Your task to perform on an android device: open app "Adobe Acrobat Reader" Image 0: 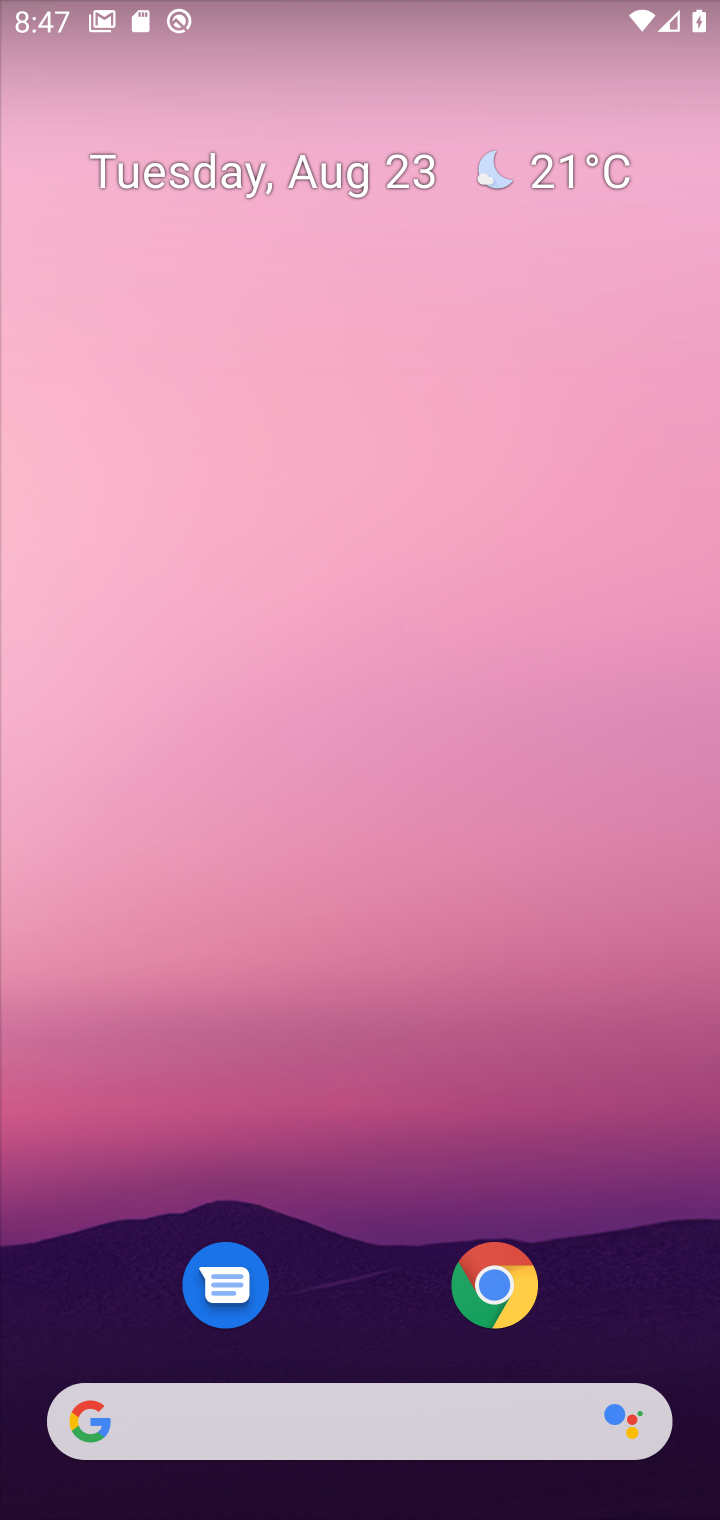
Step 0: drag from (660, 1306) to (552, 155)
Your task to perform on an android device: open app "Adobe Acrobat Reader" Image 1: 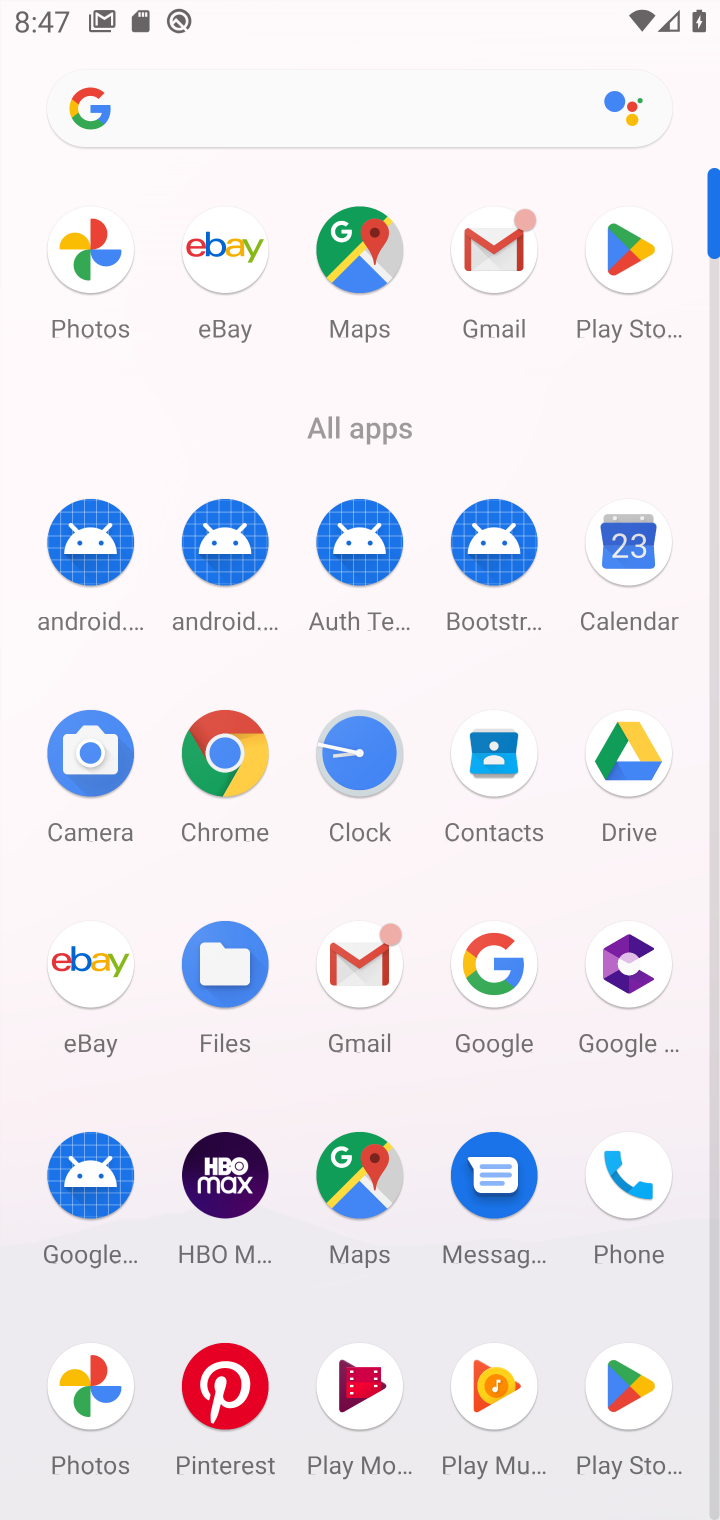
Step 1: click (634, 1384)
Your task to perform on an android device: open app "Adobe Acrobat Reader" Image 2: 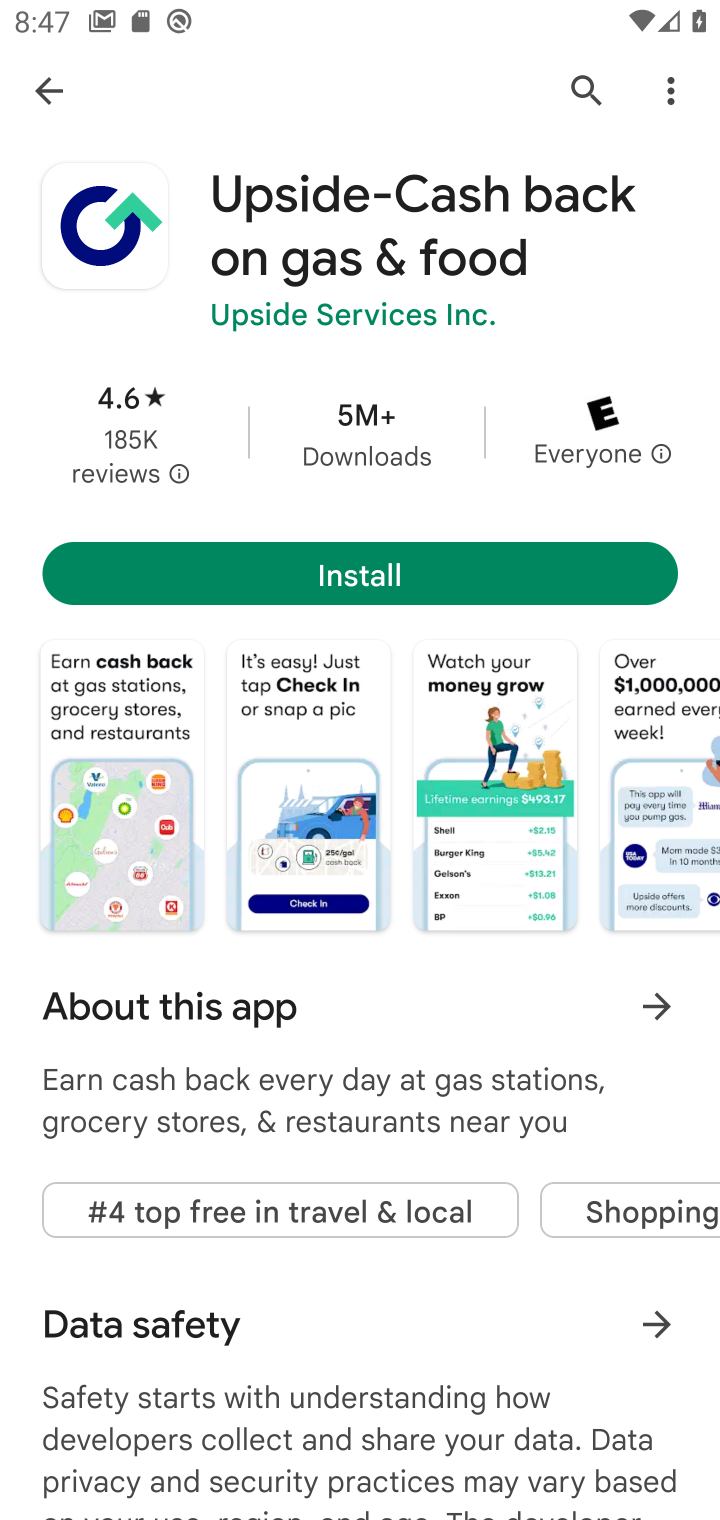
Step 2: click (585, 95)
Your task to perform on an android device: open app "Adobe Acrobat Reader" Image 3: 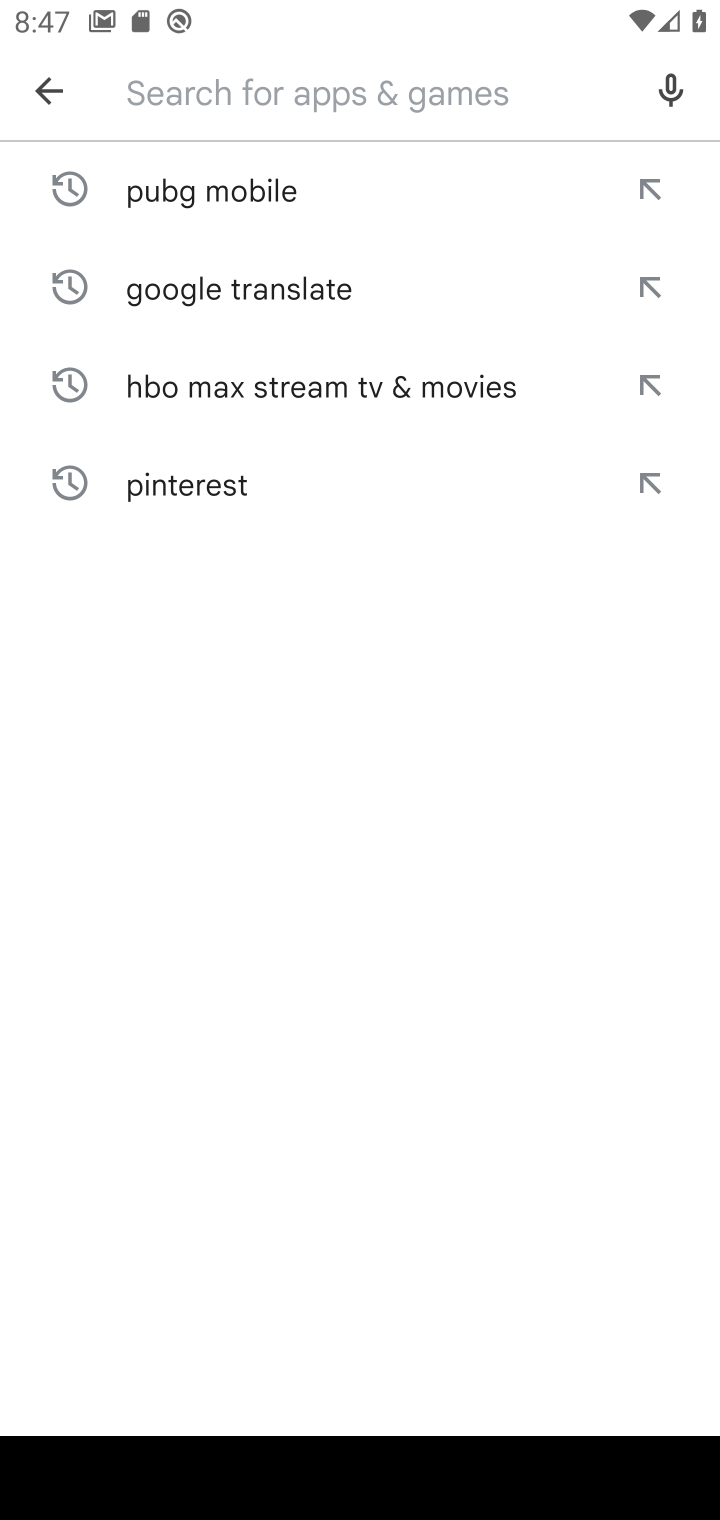
Step 3: type "Adobe Acrobat Reader"
Your task to perform on an android device: open app "Adobe Acrobat Reader" Image 4: 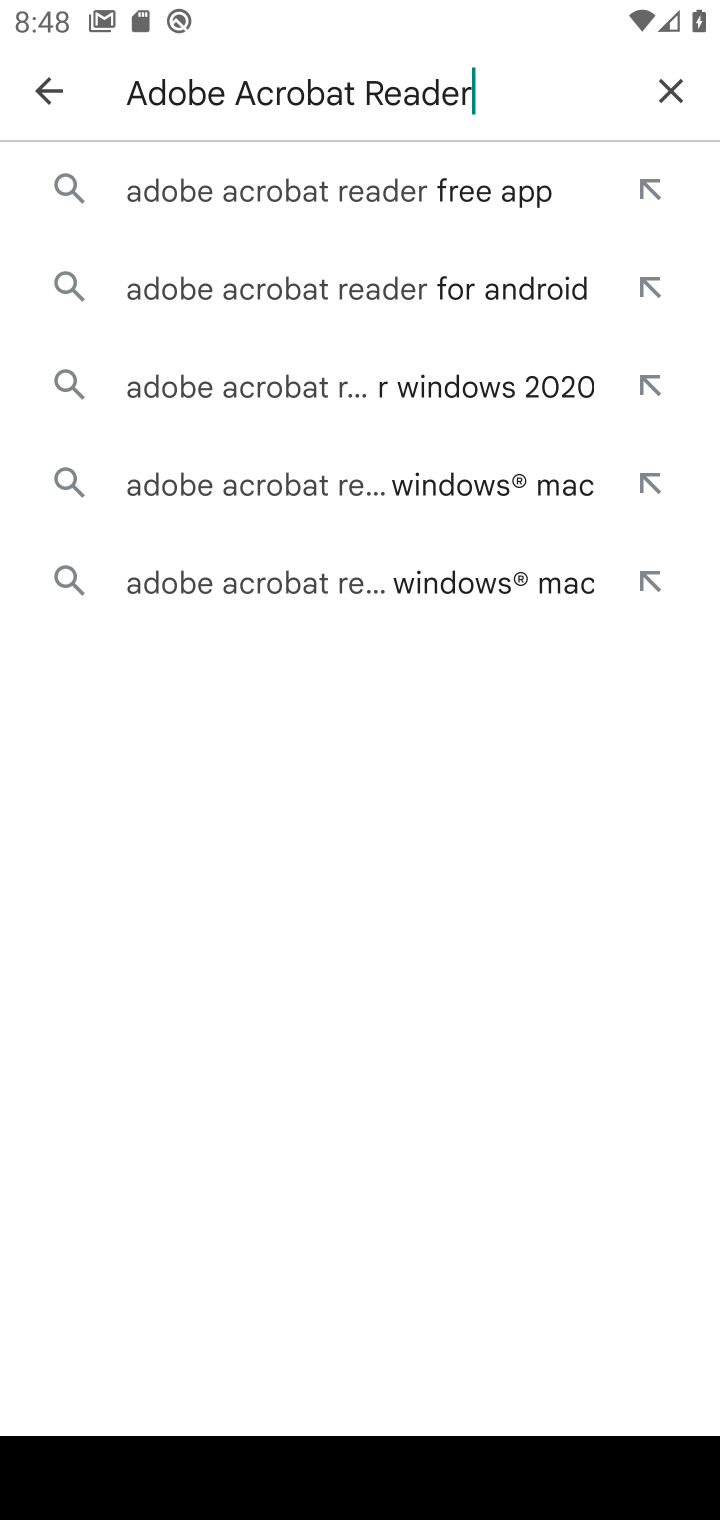
Step 4: click (260, 199)
Your task to perform on an android device: open app "Adobe Acrobat Reader" Image 5: 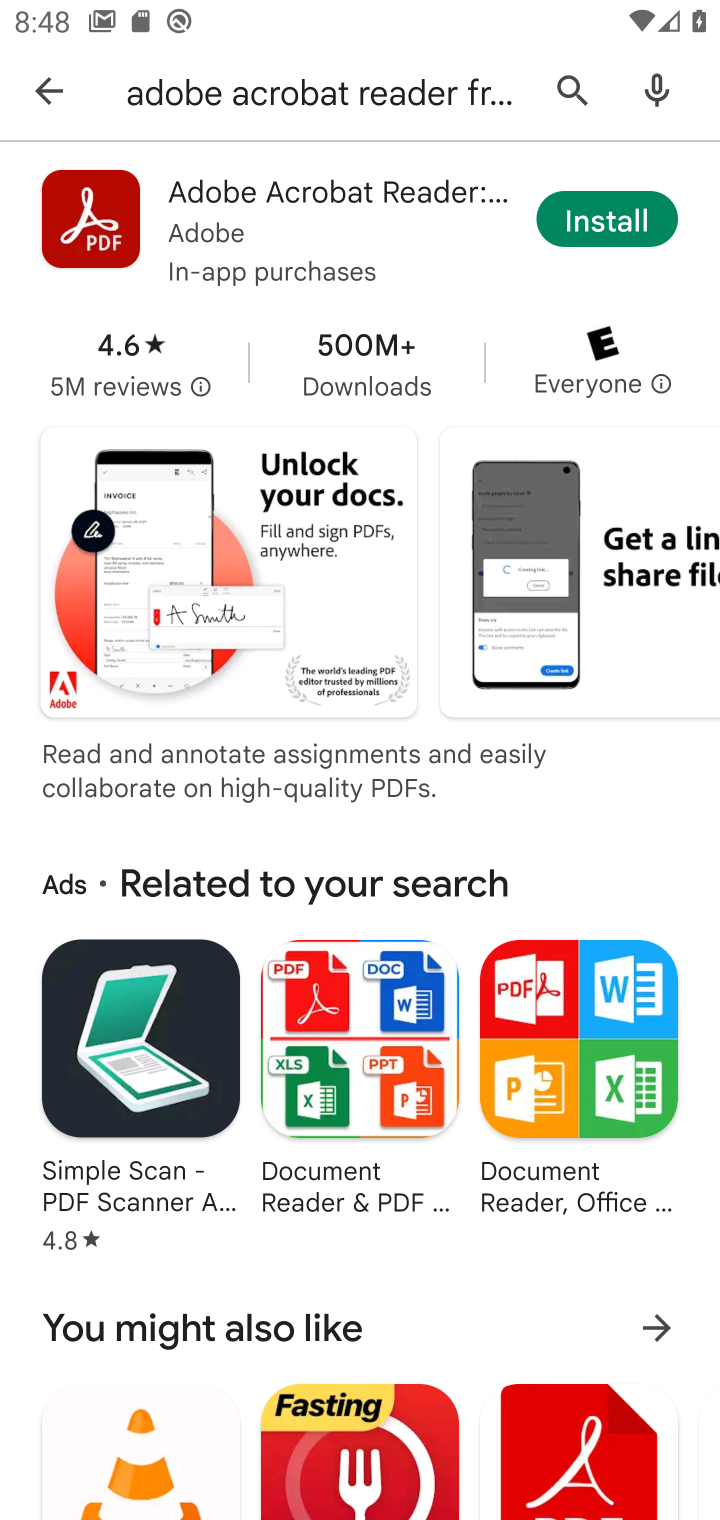
Step 5: task complete